Your task to perform on an android device: toggle notifications settings in the gmail app Image 0: 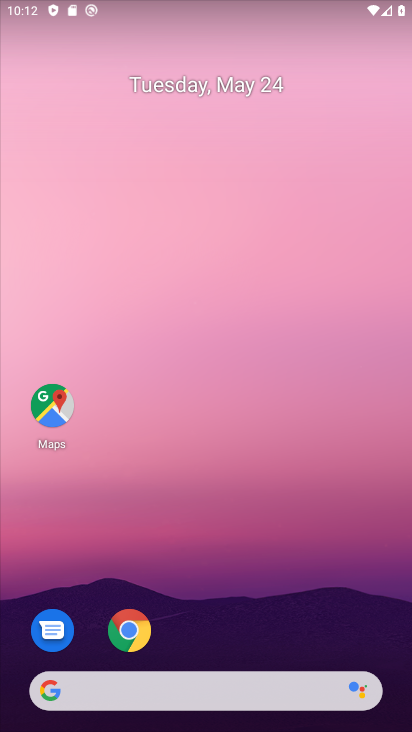
Step 0: press home button
Your task to perform on an android device: toggle notifications settings in the gmail app Image 1: 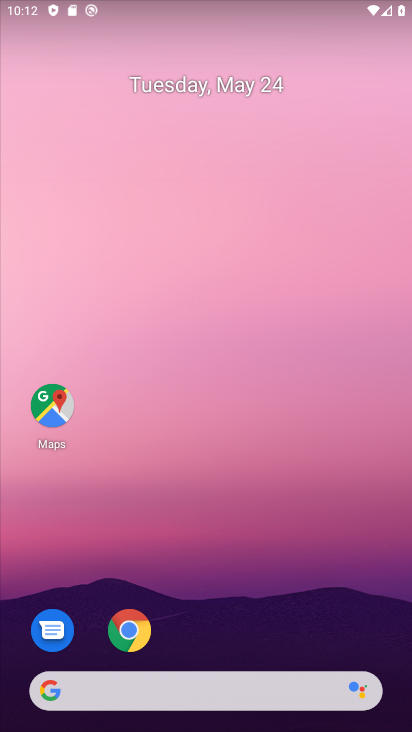
Step 1: drag from (199, 653) to (227, 116)
Your task to perform on an android device: toggle notifications settings in the gmail app Image 2: 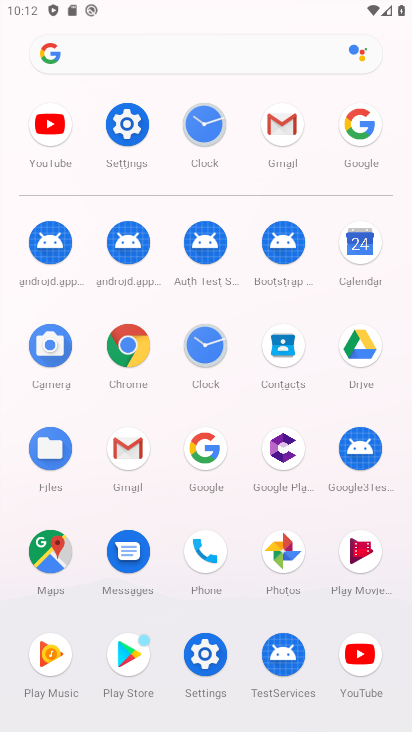
Step 2: click (129, 444)
Your task to perform on an android device: toggle notifications settings in the gmail app Image 3: 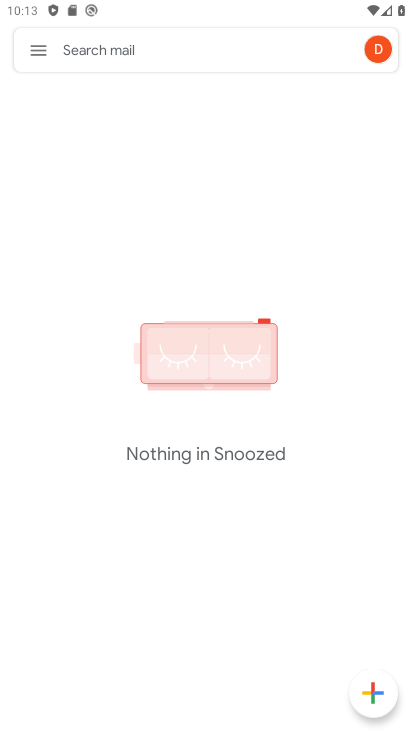
Step 3: click (30, 47)
Your task to perform on an android device: toggle notifications settings in the gmail app Image 4: 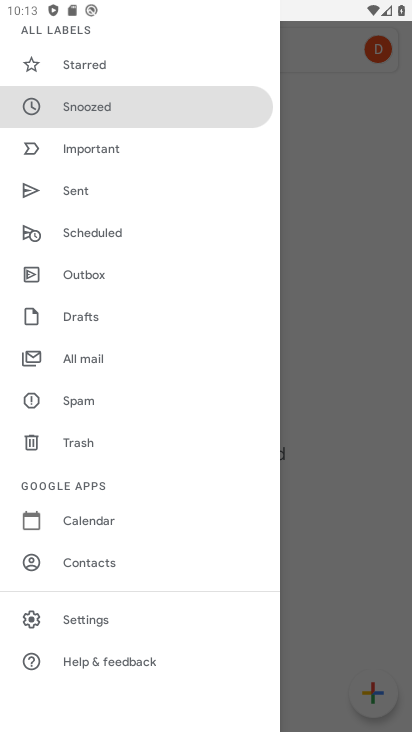
Step 4: click (116, 620)
Your task to perform on an android device: toggle notifications settings in the gmail app Image 5: 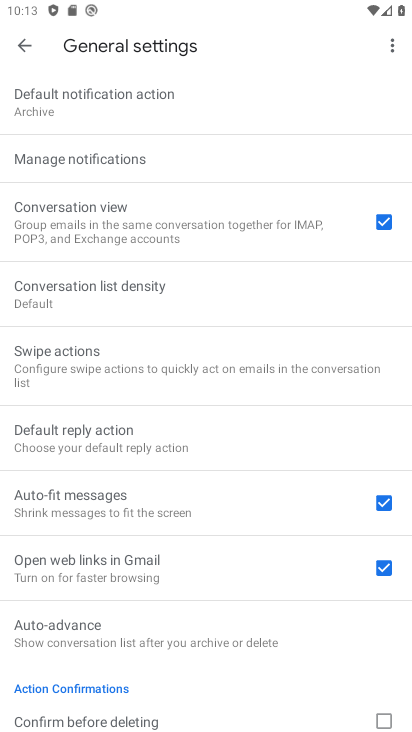
Step 5: click (132, 166)
Your task to perform on an android device: toggle notifications settings in the gmail app Image 6: 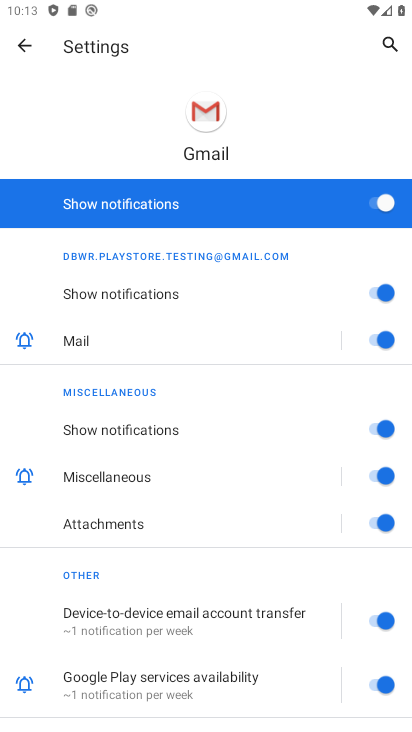
Step 6: click (378, 203)
Your task to perform on an android device: toggle notifications settings in the gmail app Image 7: 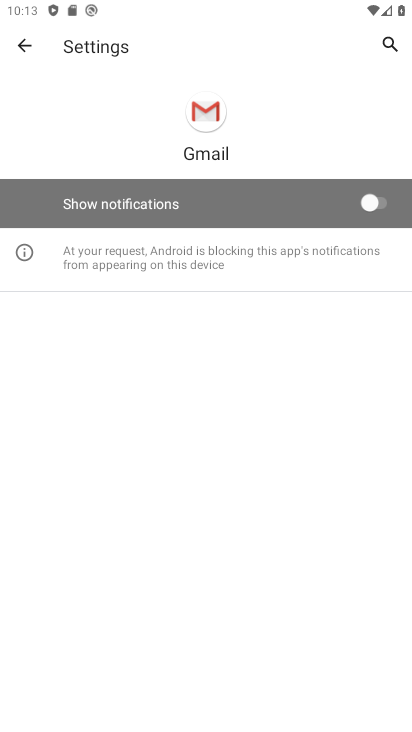
Step 7: task complete